Your task to perform on an android device: set an alarm Image 0: 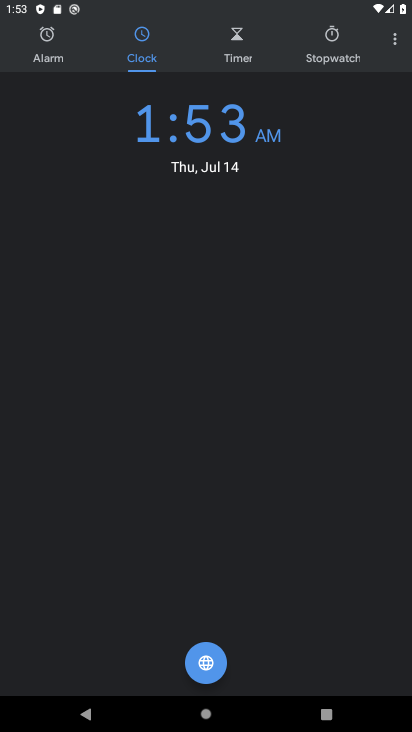
Step 0: click (43, 39)
Your task to perform on an android device: set an alarm Image 1: 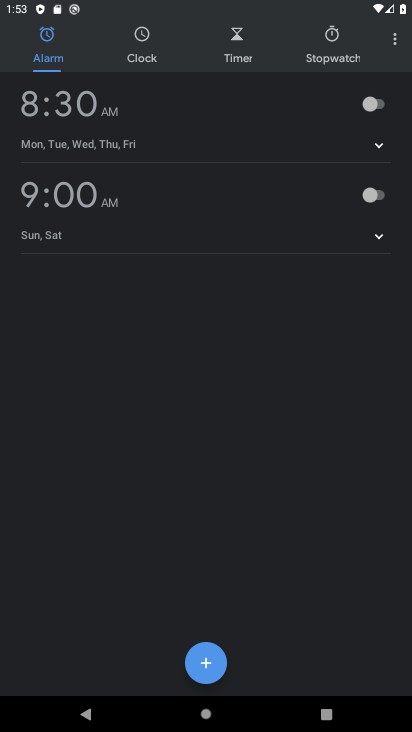
Step 1: click (201, 659)
Your task to perform on an android device: set an alarm Image 2: 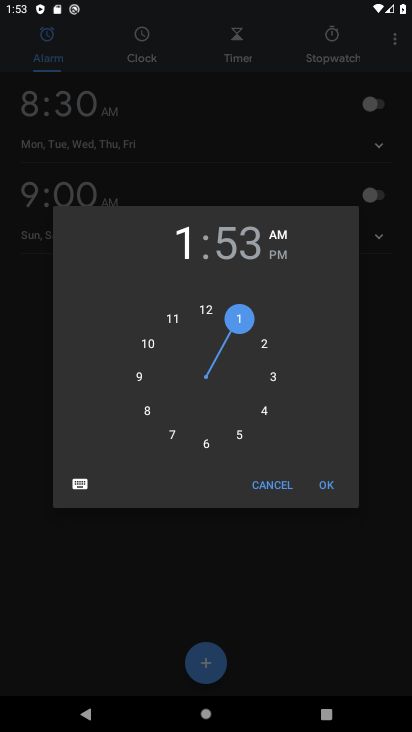
Step 2: click (168, 432)
Your task to perform on an android device: set an alarm Image 3: 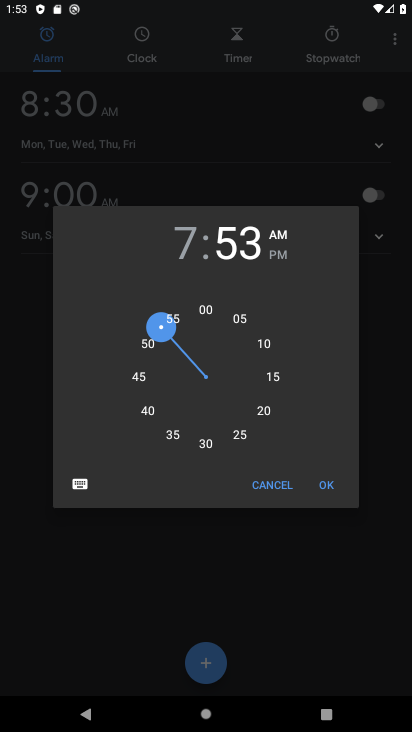
Step 3: click (323, 484)
Your task to perform on an android device: set an alarm Image 4: 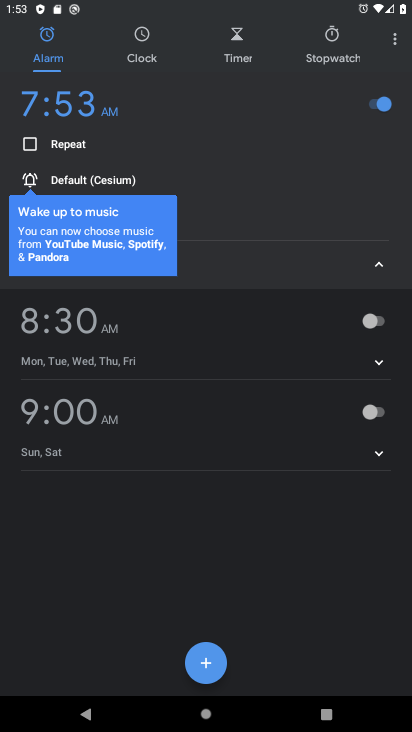
Step 4: task complete